Your task to perform on an android device: Is it going to rain tomorrow? Image 0: 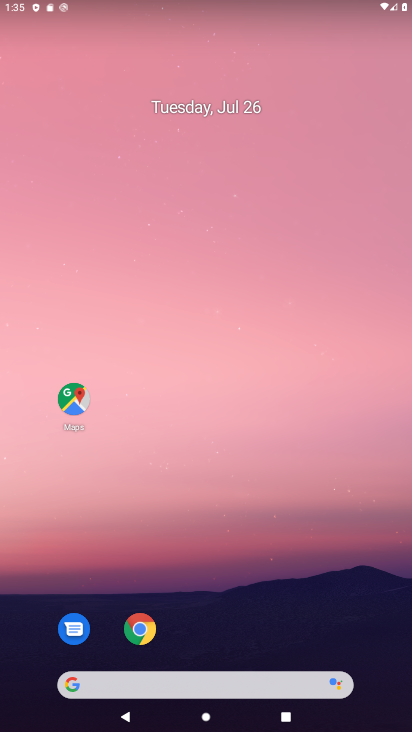
Step 0: drag from (131, 716) to (224, 20)
Your task to perform on an android device: Is it going to rain tomorrow? Image 1: 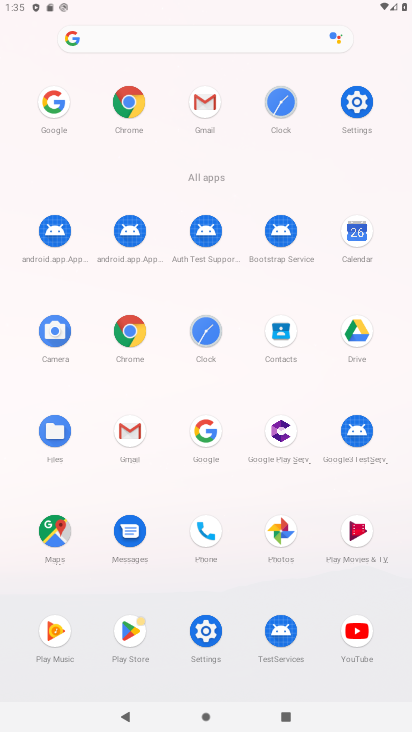
Step 1: click (132, 339)
Your task to perform on an android device: Is it going to rain tomorrow? Image 2: 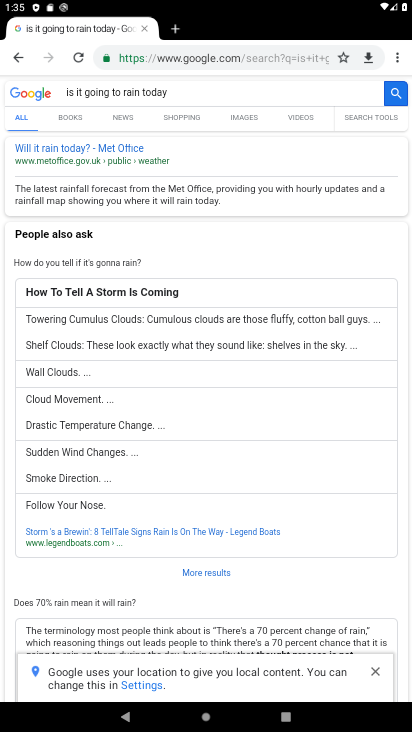
Step 2: task complete